Your task to perform on an android device: turn pop-ups on in chrome Image 0: 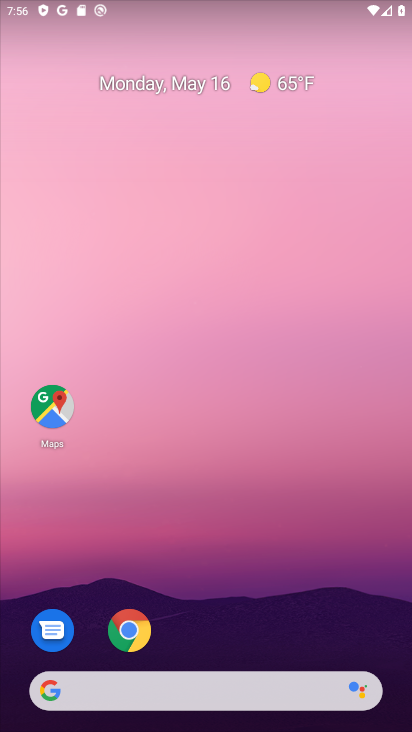
Step 0: click (144, 622)
Your task to perform on an android device: turn pop-ups on in chrome Image 1: 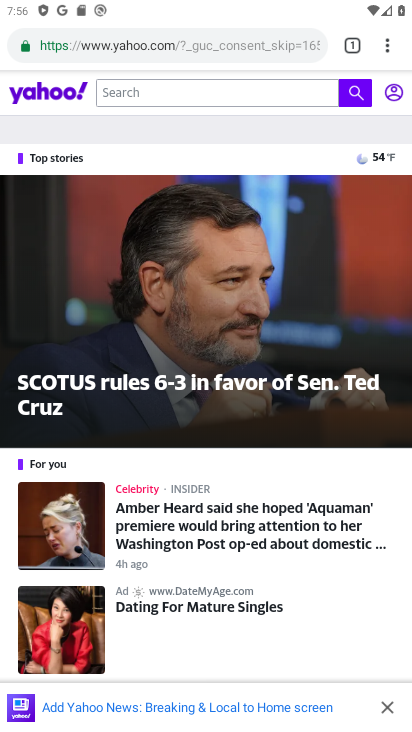
Step 1: click (381, 46)
Your task to perform on an android device: turn pop-ups on in chrome Image 2: 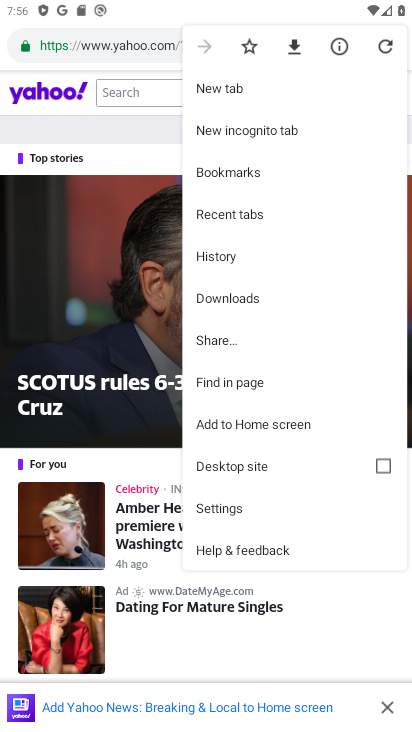
Step 2: click (236, 499)
Your task to perform on an android device: turn pop-ups on in chrome Image 3: 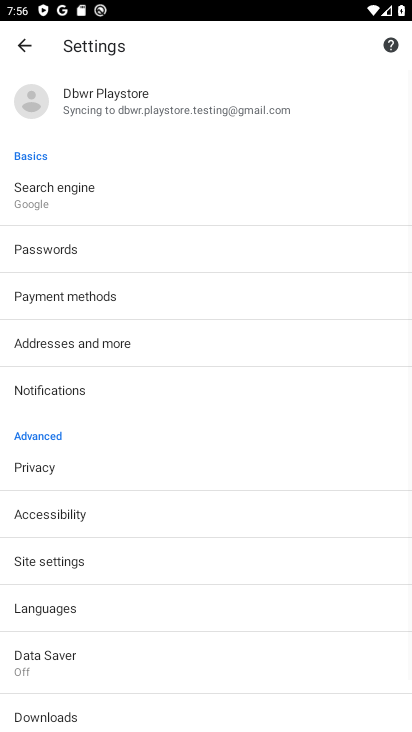
Step 3: drag from (134, 663) to (157, 495)
Your task to perform on an android device: turn pop-ups on in chrome Image 4: 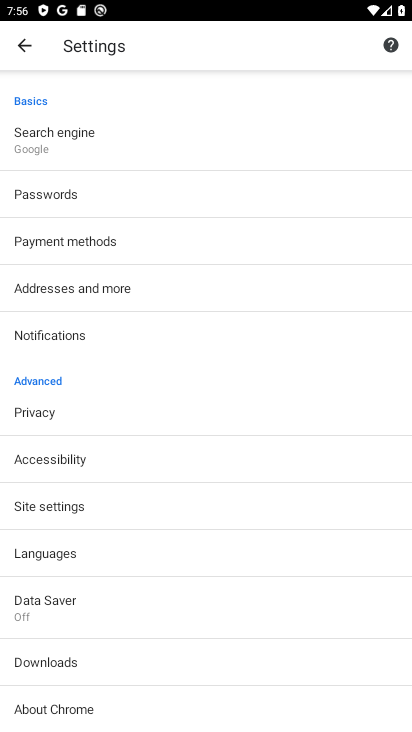
Step 4: click (87, 507)
Your task to perform on an android device: turn pop-ups on in chrome Image 5: 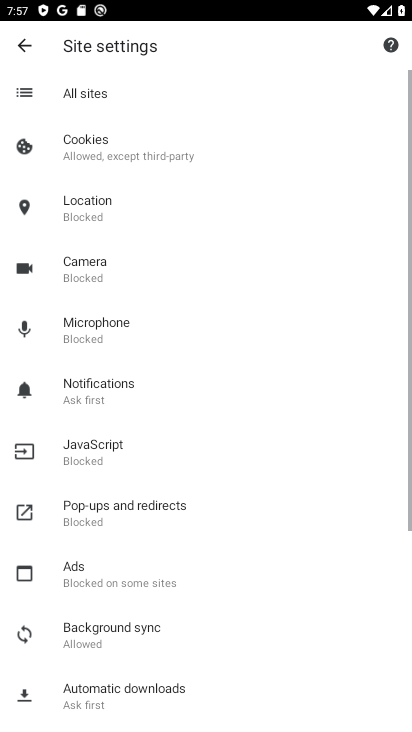
Step 5: click (152, 517)
Your task to perform on an android device: turn pop-ups on in chrome Image 6: 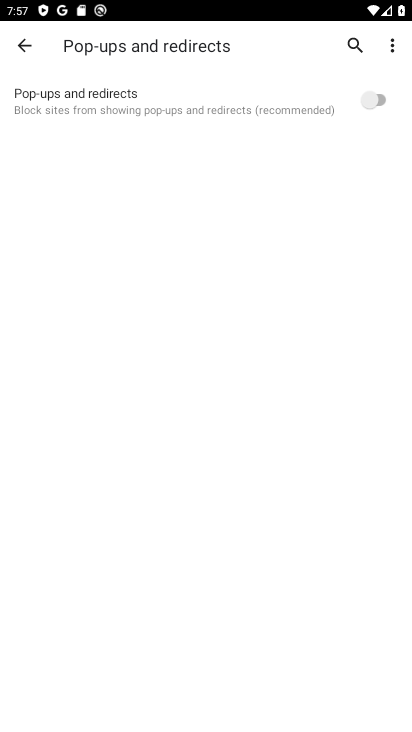
Step 6: click (375, 97)
Your task to perform on an android device: turn pop-ups on in chrome Image 7: 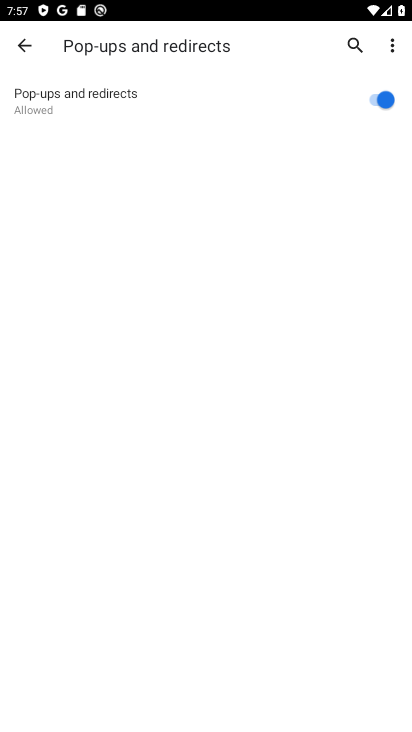
Step 7: task complete